Your task to perform on an android device: install app "Google Drive" Image 0: 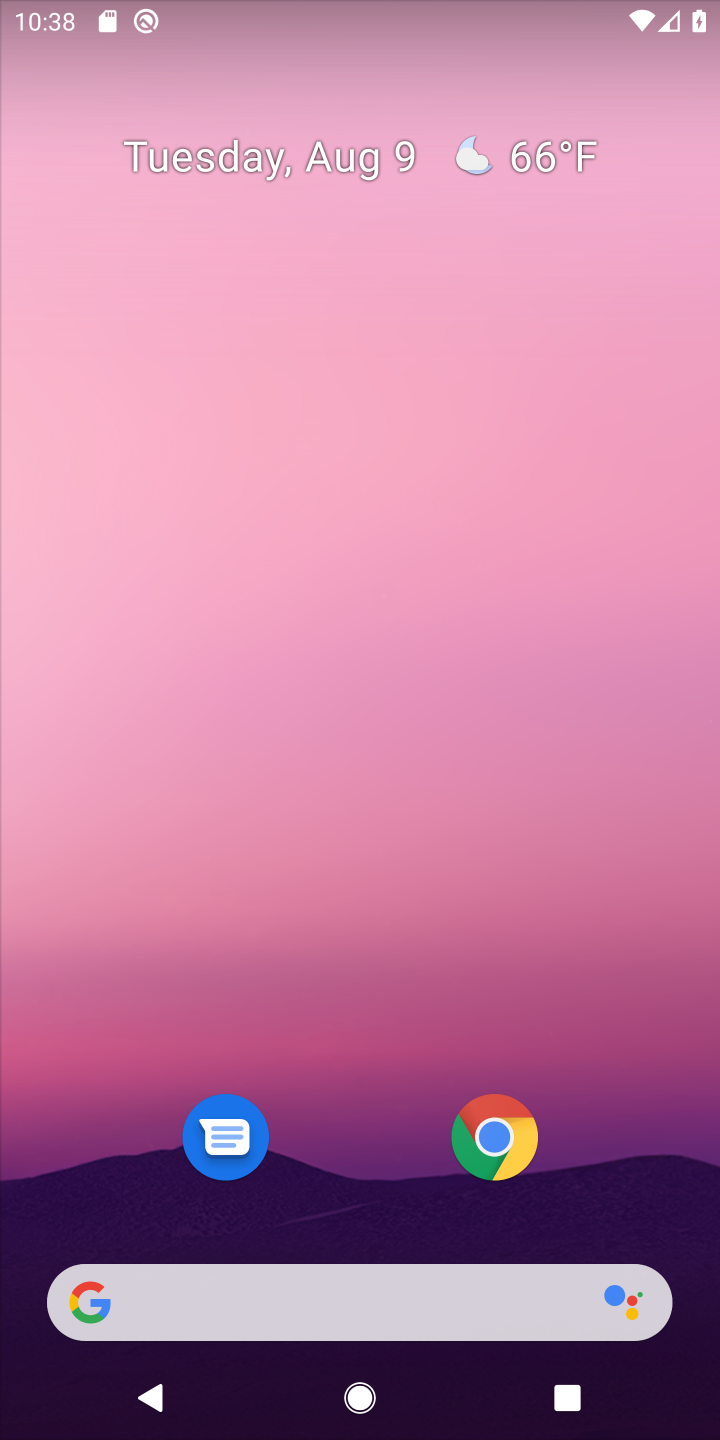
Step 0: drag from (343, 1028) to (335, 402)
Your task to perform on an android device: install app "Google Drive" Image 1: 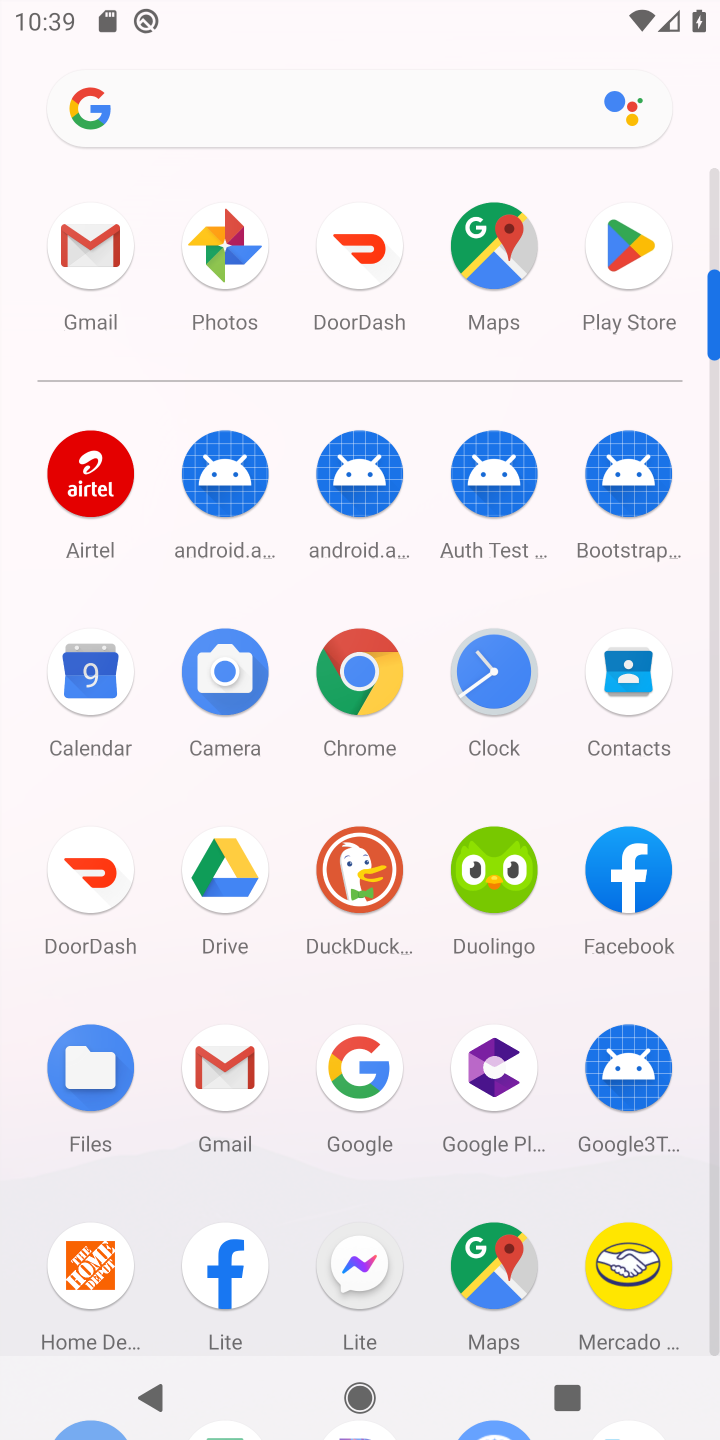
Step 1: click (634, 261)
Your task to perform on an android device: install app "Google Drive" Image 2: 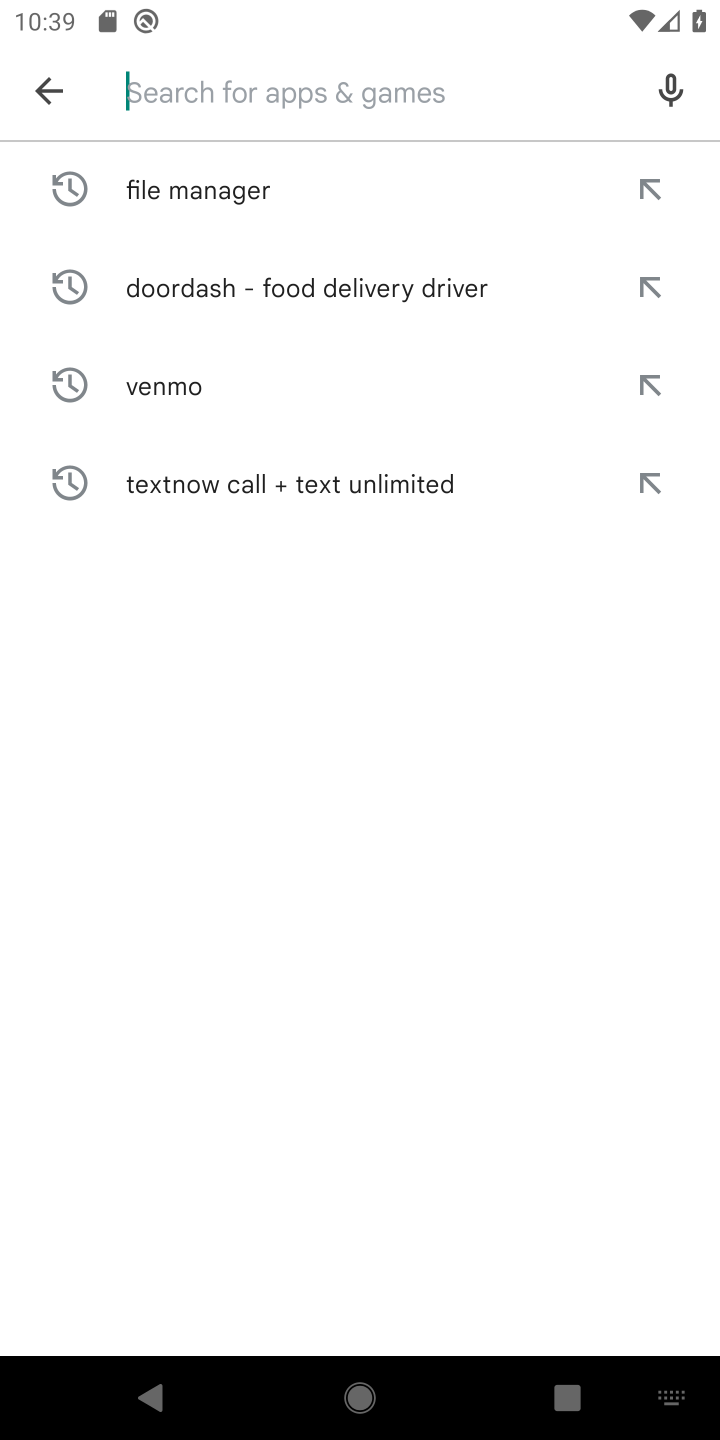
Step 2: click (327, 99)
Your task to perform on an android device: install app "Google Drive" Image 3: 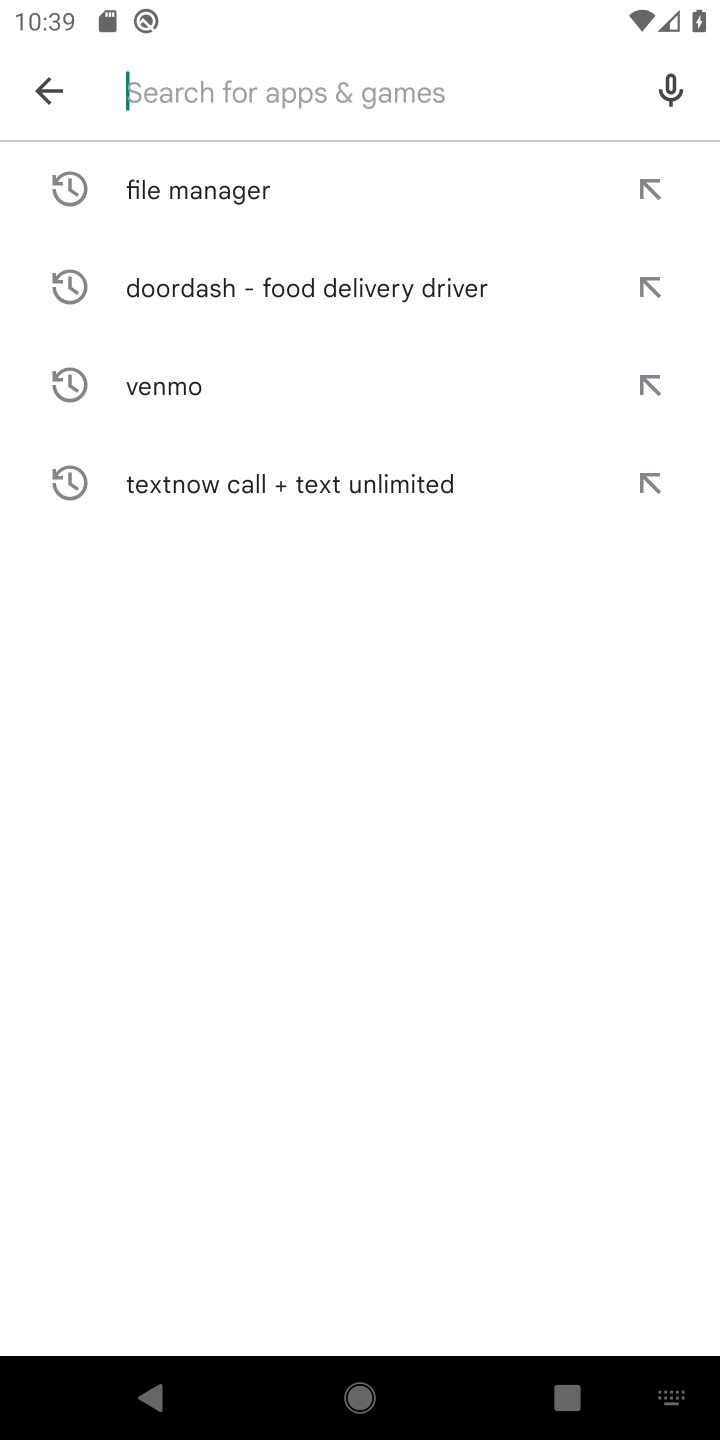
Step 3: type "Google Drive"
Your task to perform on an android device: install app "Google Drive" Image 4: 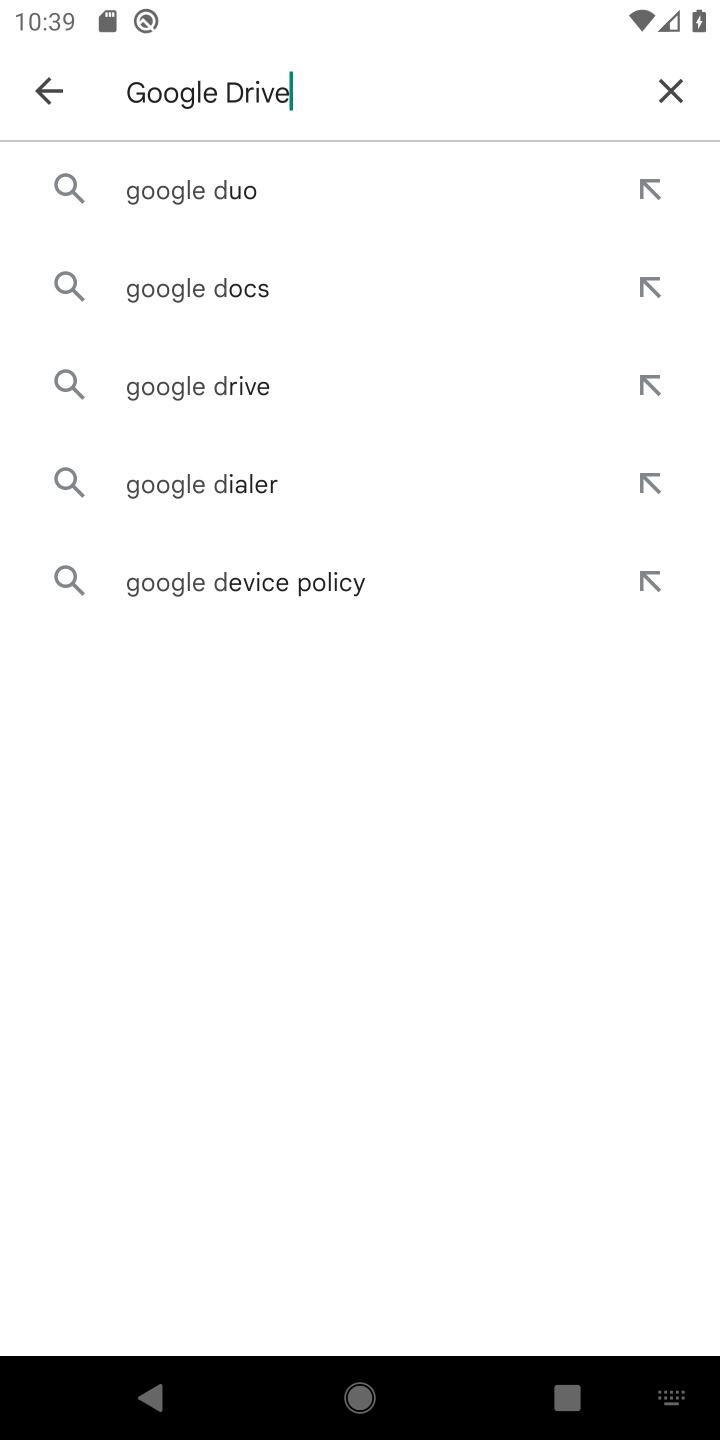
Step 4: type ""
Your task to perform on an android device: install app "Google Drive" Image 5: 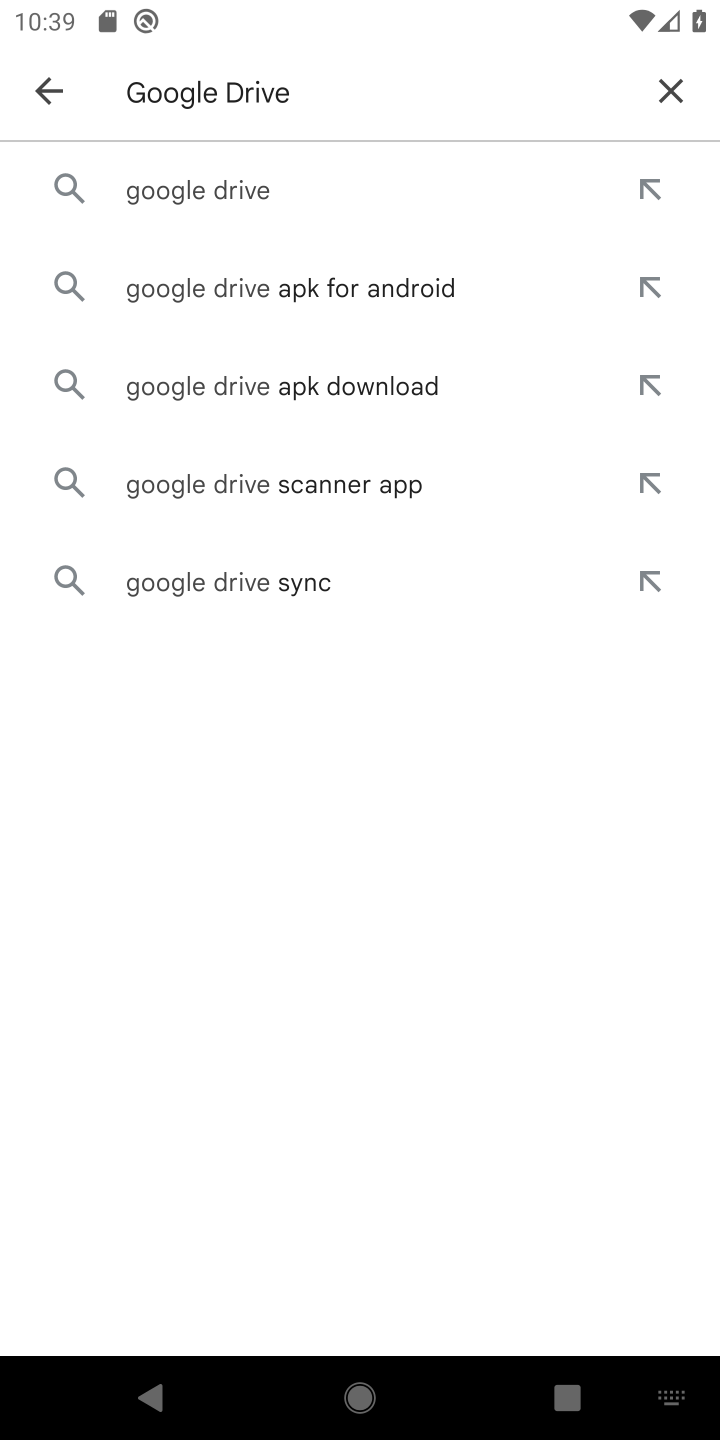
Step 5: click (273, 206)
Your task to perform on an android device: install app "Google Drive" Image 6: 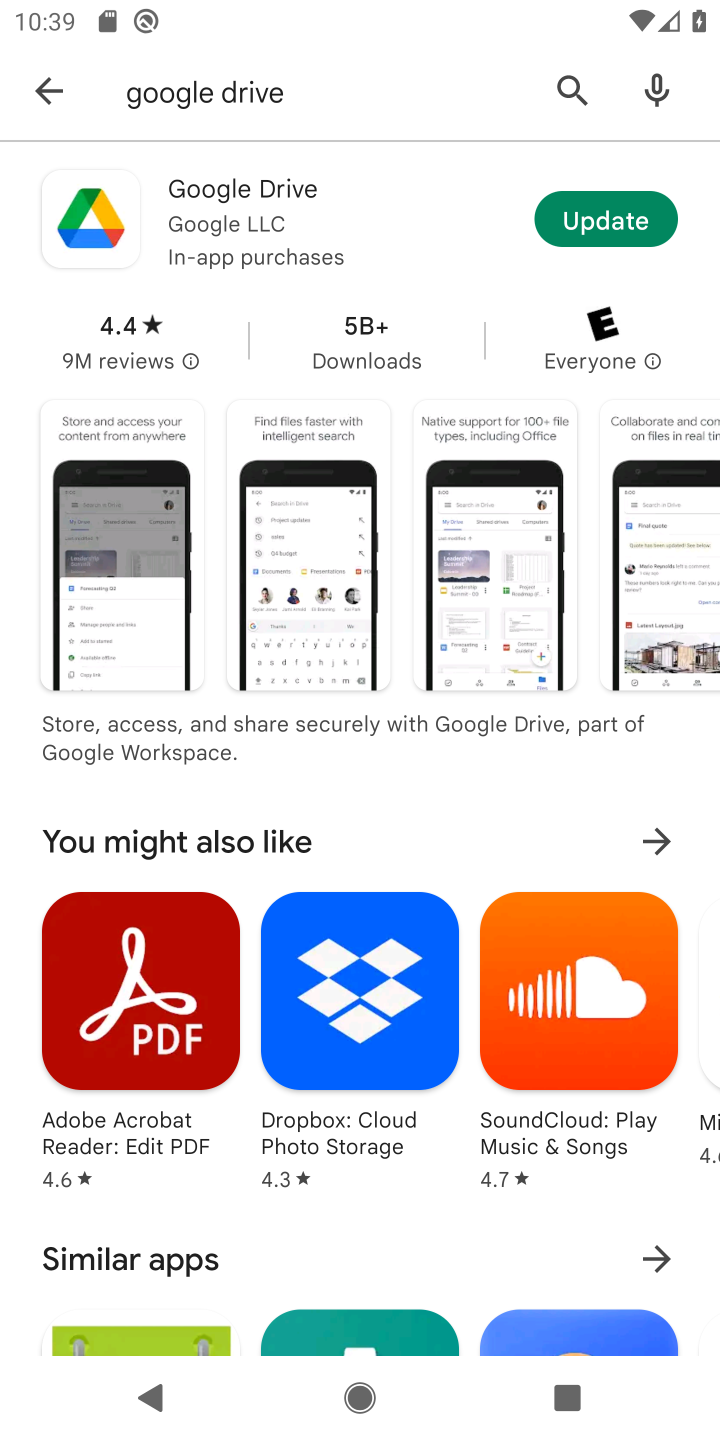
Step 6: click (353, 201)
Your task to perform on an android device: install app "Google Drive" Image 7: 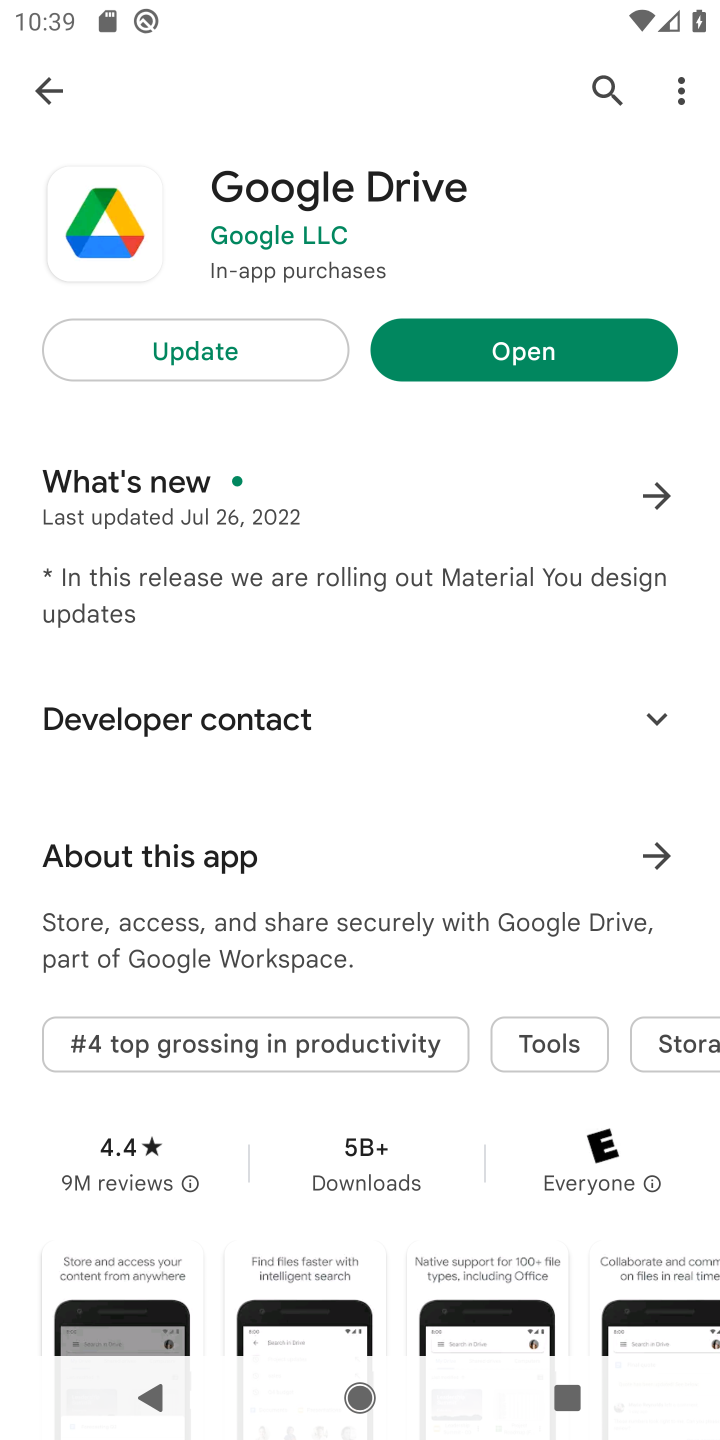
Step 7: task complete